Your task to perform on an android device: toggle improve location accuracy Image 0: 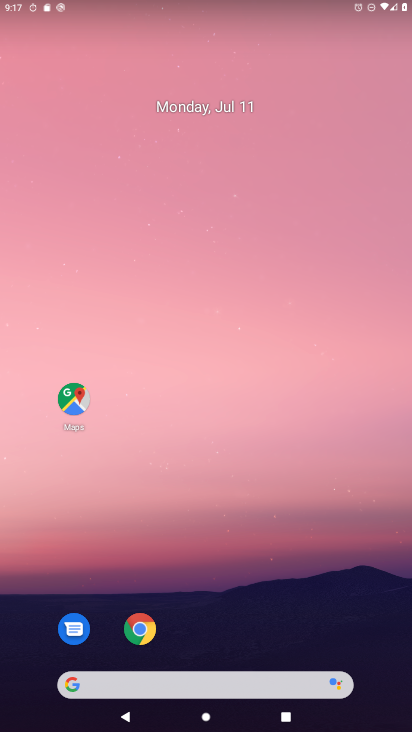
Step 0: drag from (216, 601) to (233, 207)
Your task to perform on an android device: toggle improve location accuracy Image 1: 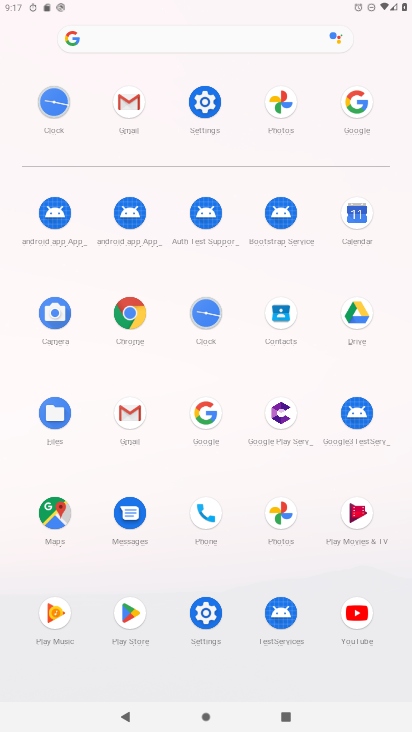
Step 1: click (206, 99)
Your task to perform on an android device: toggle improve location accuracy Image 2: 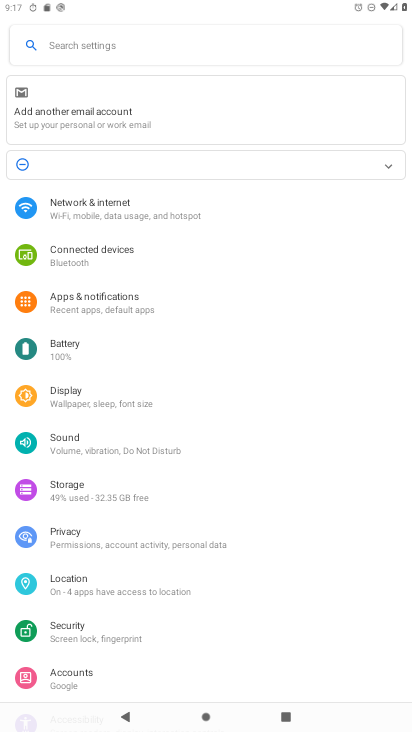
Step 2: click (53, 580)
Your task to perform on an android device: toggle improve location accuracy Image 3: 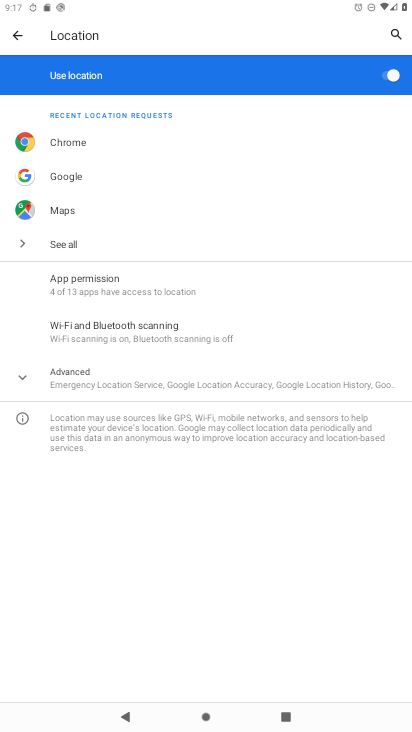
Step 3: click (84, 374)
Your task to perform on an android device: toggle improve location accuracy Image 4: 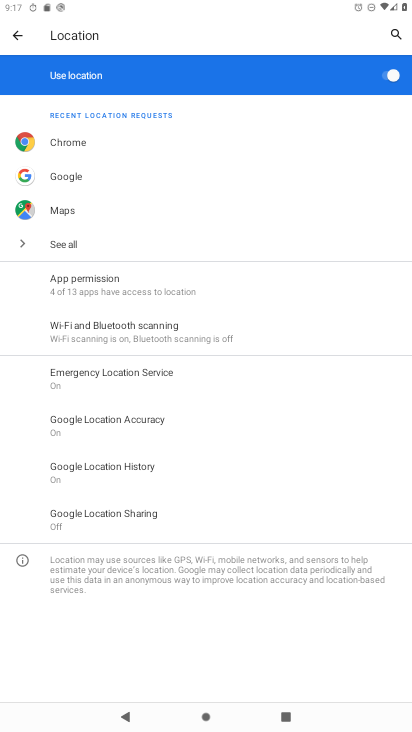
Step 4: click (123, 424)
Your task to perform on an android device: toggle improve location accuracy Image 5: 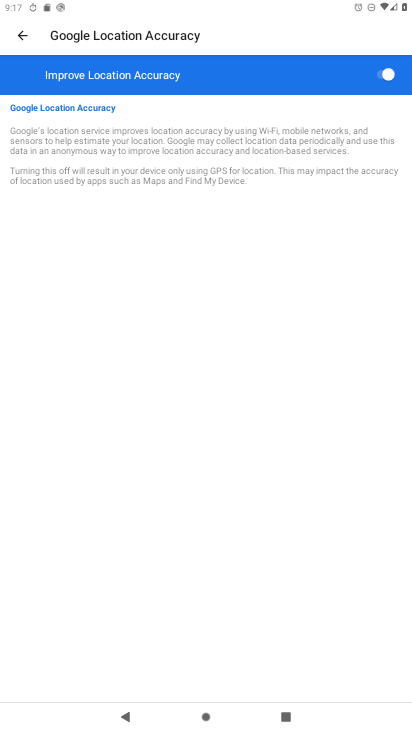
Step 5: click (384, 69)
Your task to perform on an android device: toggle improve location accuracy Image 6: 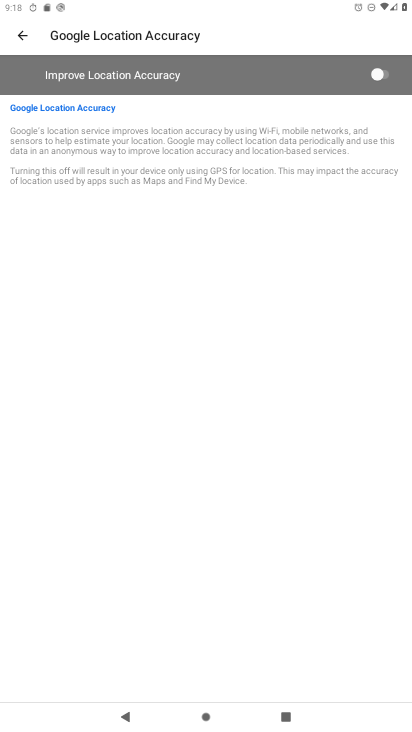
Step 6: task complete